Your task to perform on an android device: Search for pizza restaurants on Maps Image 0: 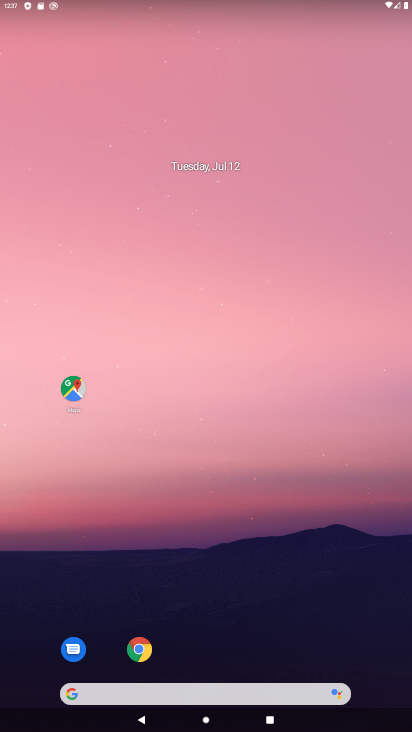
Step 0: drag from (299, 633) to (260, 200)
Your task to perform on an android device: Search for pizza restaurants on Maps Image 1: 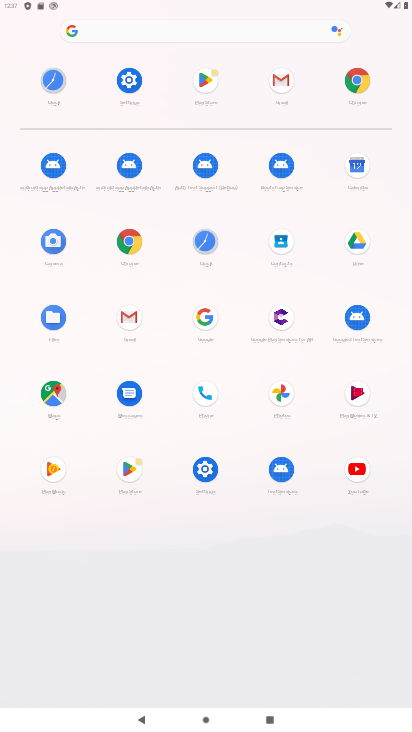
Step 1: click (49, 409)
Your task to perform on an android device: Search for pizza restaurants on Maps Image 2: 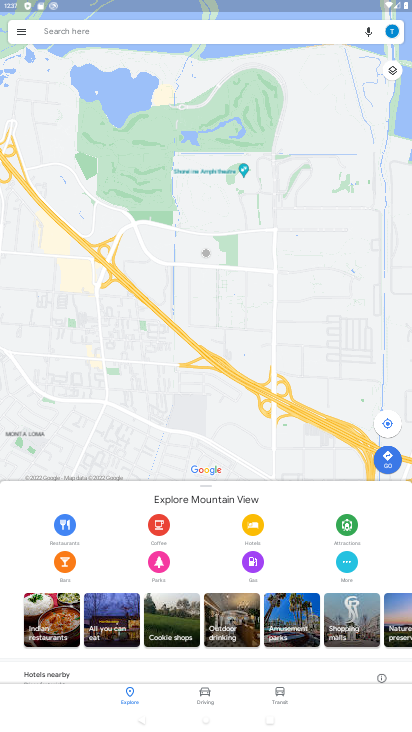
Step 2: click (159, 31)
Your task to perform on an android device: Search for pizza restaurants on Maps Image 3: 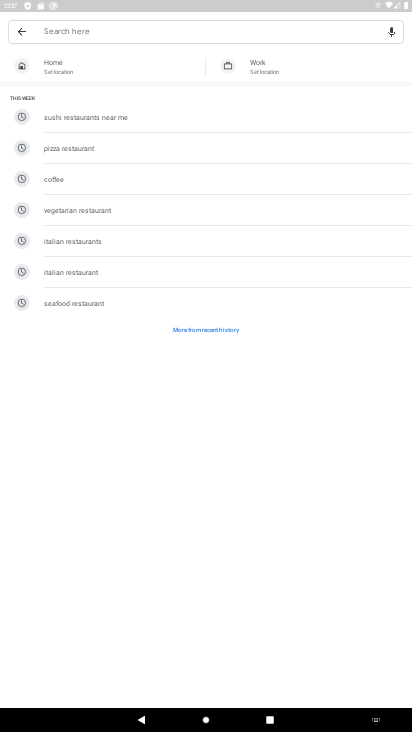
Step 3: type "PIZZA"
Your task to perform on an android device: Search for pizza restaurants on Maps Image 4: 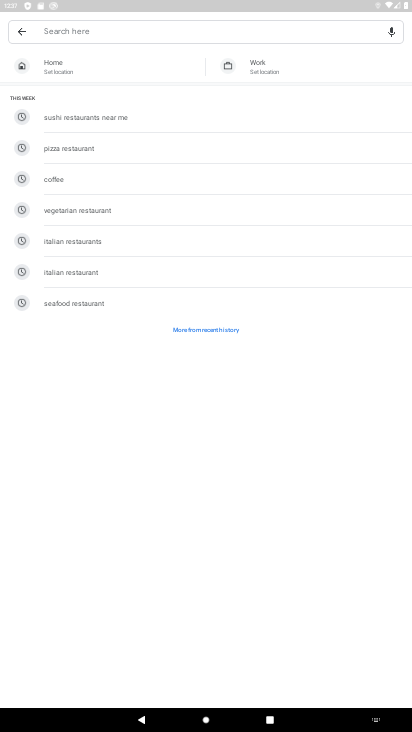
Step 4: click (159, 147)
Your task to perform on an android device: Search for pizza restaurants on Maps Image 5: 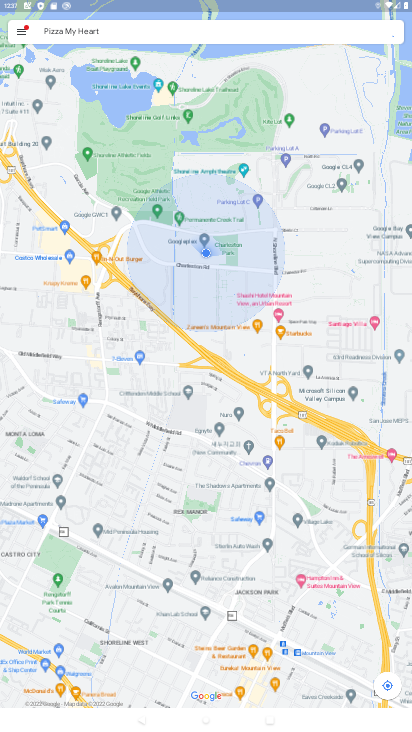
Step 5: task complete